Your task to perform on an android device: Open a new incognito tab in the chrome app Image 0: 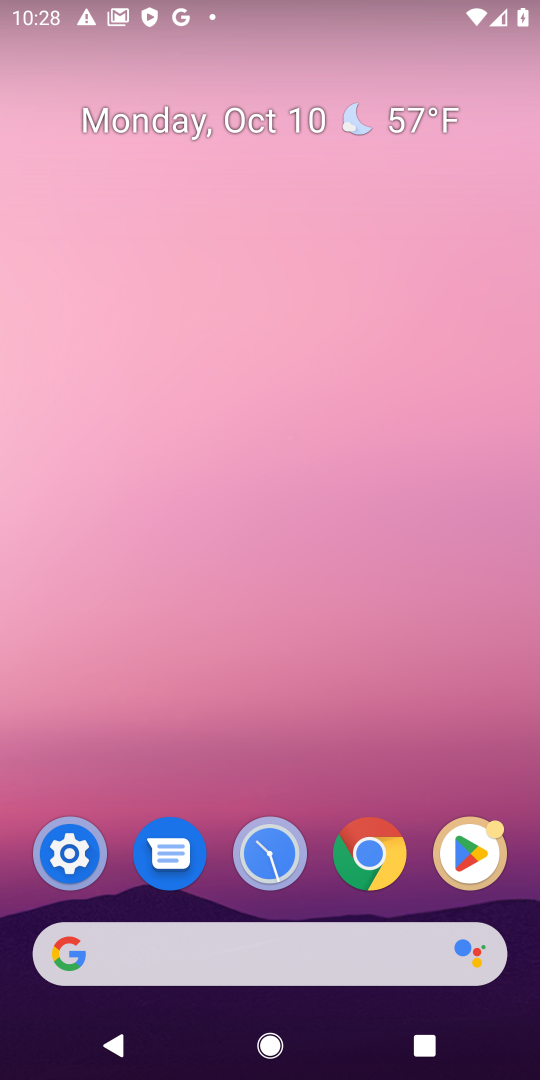
Step 0: click (386, 950)
Your task to perform on an android device: Open a new incognito tab in the chrome app Image 1: 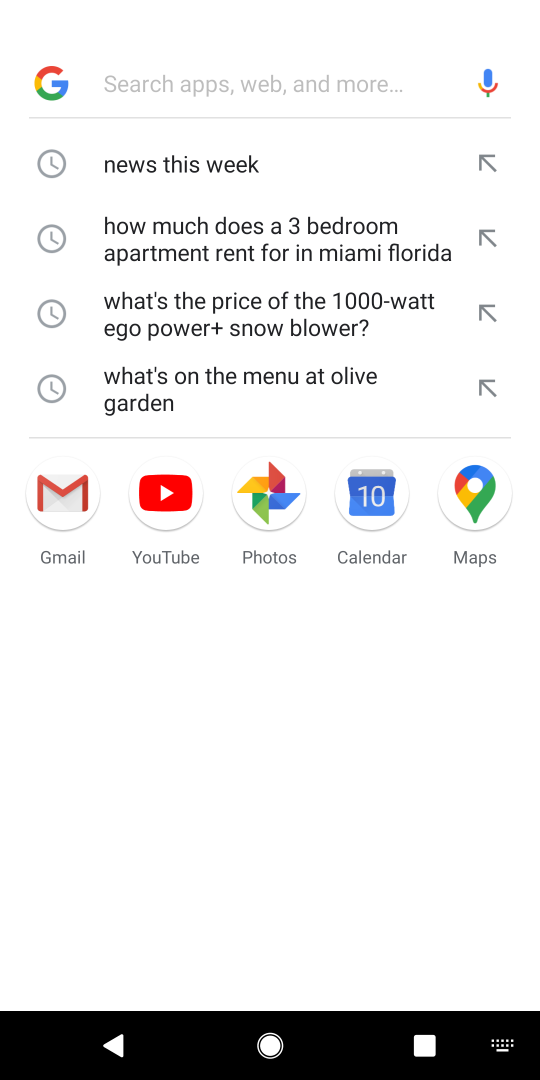
Step 1: press home button
Your task to perform on an android device: Open a new incognito tab in the chrome app Image 2: 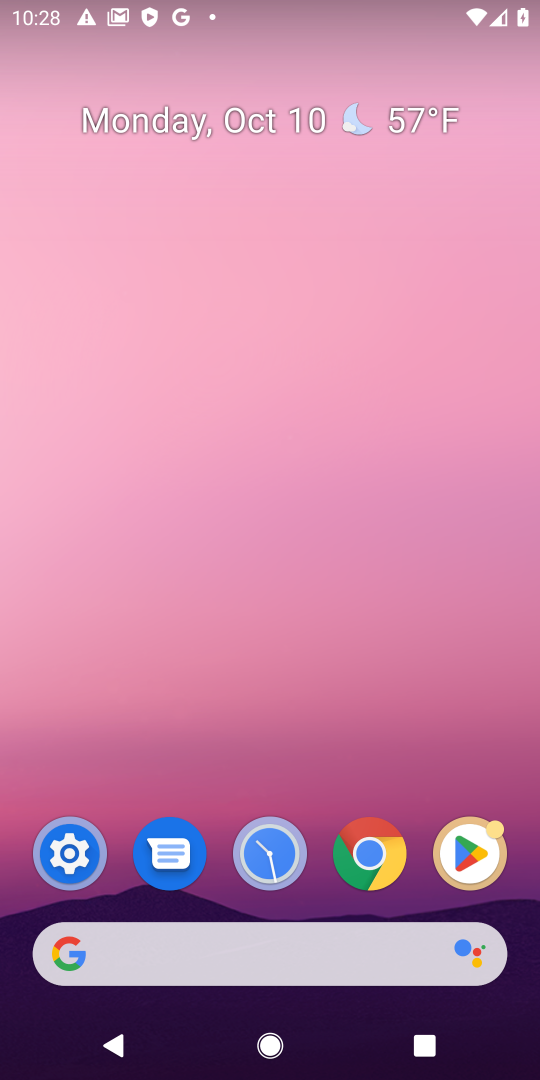
Step 2: drag from (509, 735) to (474, 87)
Your task to perform on an android device: Open a new incognito tab in the chrome app Image 3: 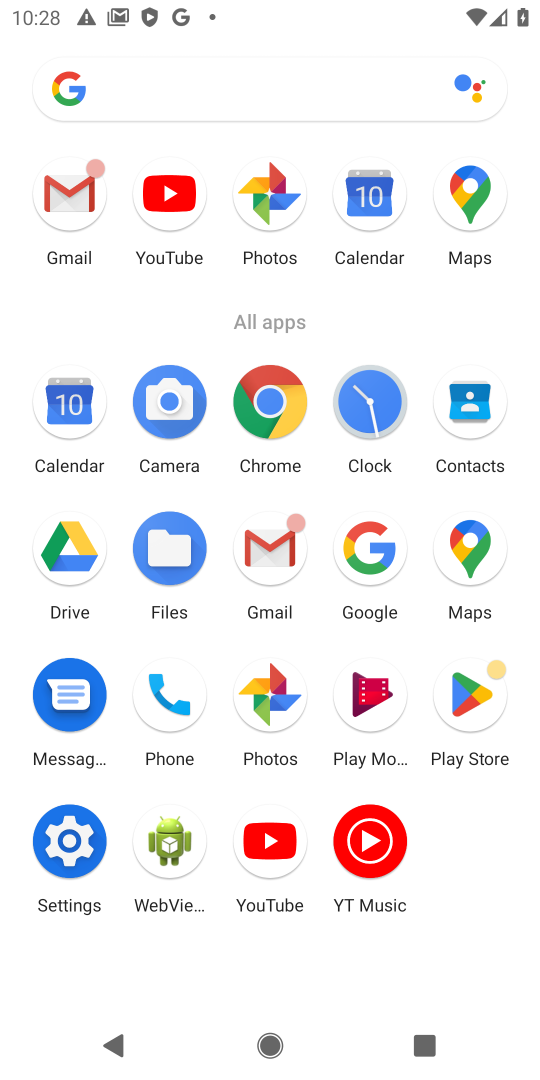
Step 3: click (276, 402)
Your task to perform on an android device: Open a new incognito tab in the chrome app Image 4: 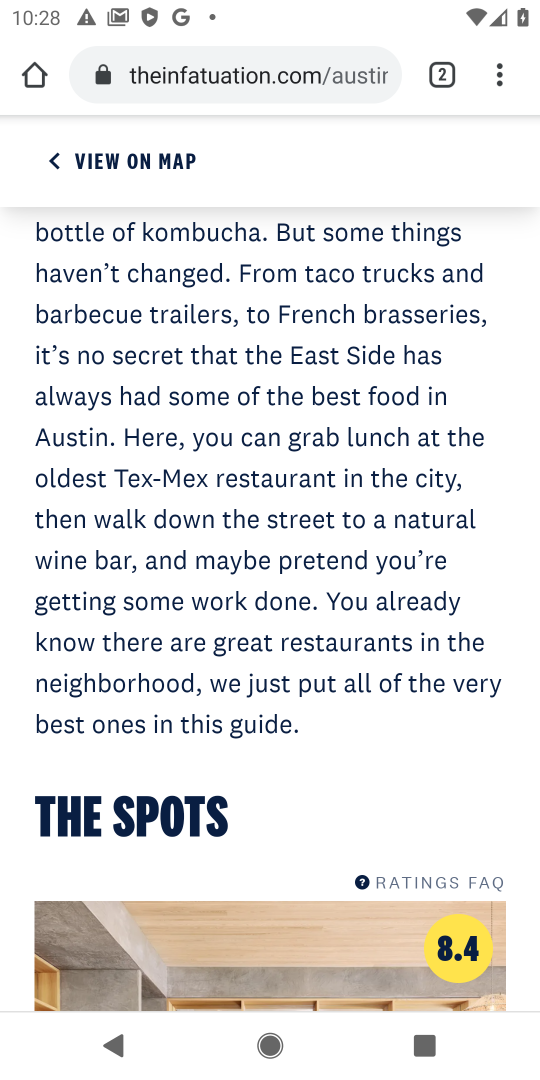
Step 4: click (499, 90)
Your task to perform on an android device: Open a new incognito tab in the chrome app Image 5: 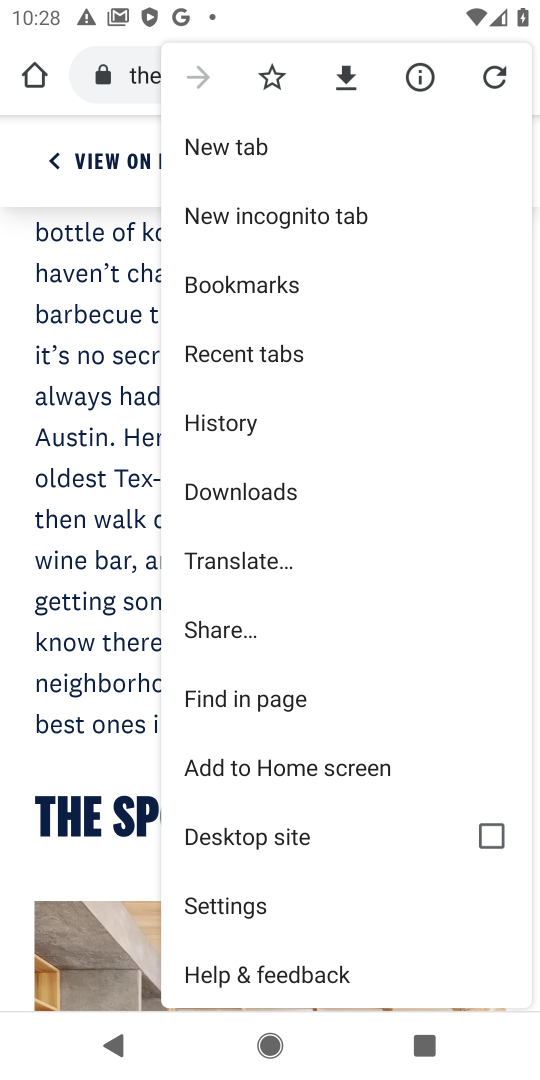
Step 5: click (346, 219)
Your task to perform on an android device: Open a new incognito tab in the chrome app Image 6: 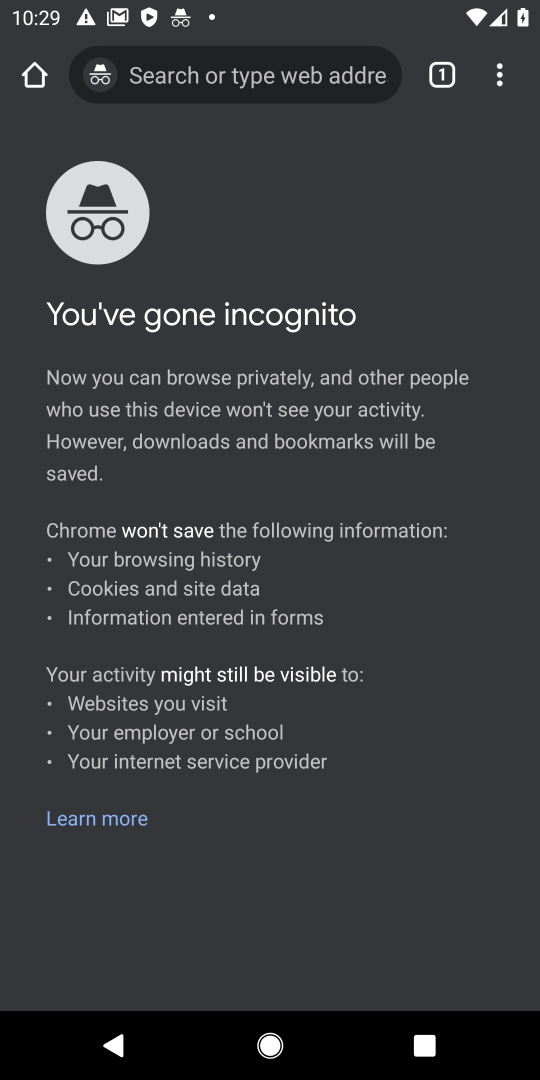
Step 6: task complete